Your task to perform on an android device: Play the last video I watched on Youtube Image 0: 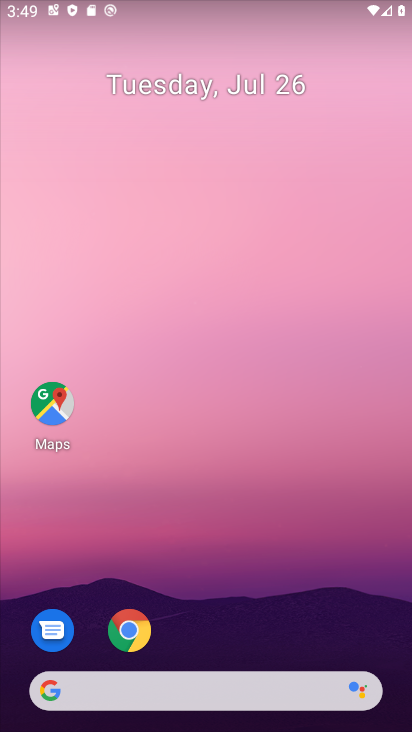
Step 0: drag from (263, 618) to (216, 85)
Your task to perform on an android device: Play the last video I watched on Youtube Image 1: 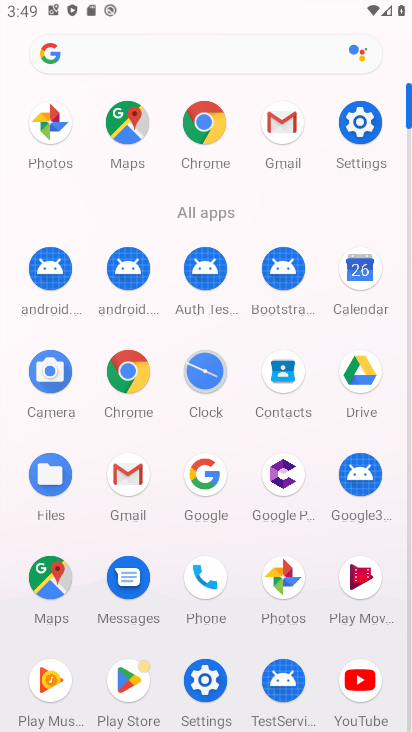
Step 1: click (366, 673)
Your task to perform on an android device: Play the last video I watched on Youtube Image 2: 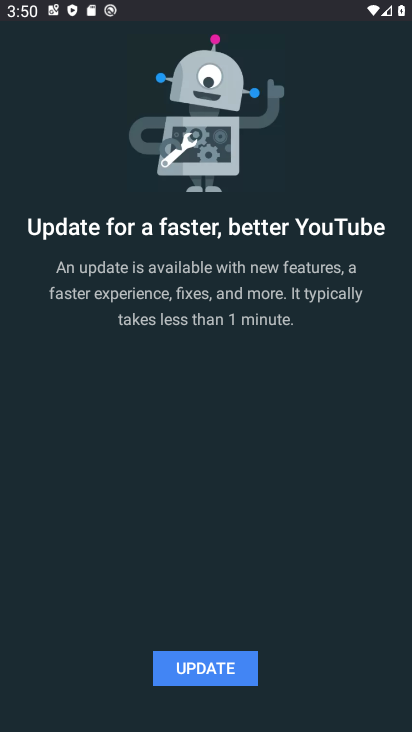
Step 2: click (247, 678)
Your task to perform on an android device: Play the last video I watched on Youtube Image 3: 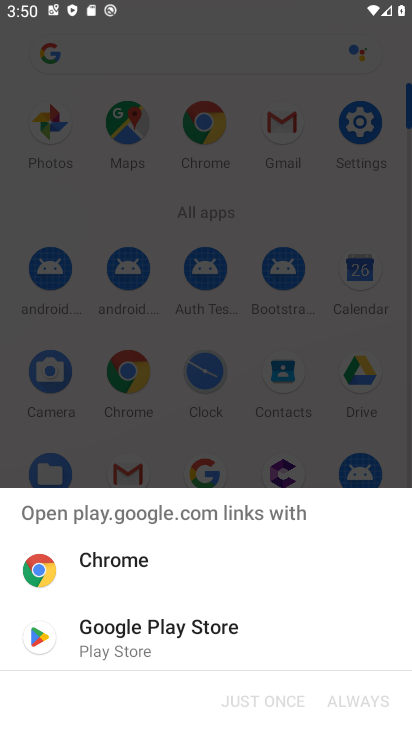
Step 3: click (200, 633)
Your task to perform on an android device: Play the last video I watched on Youtube Image 4: 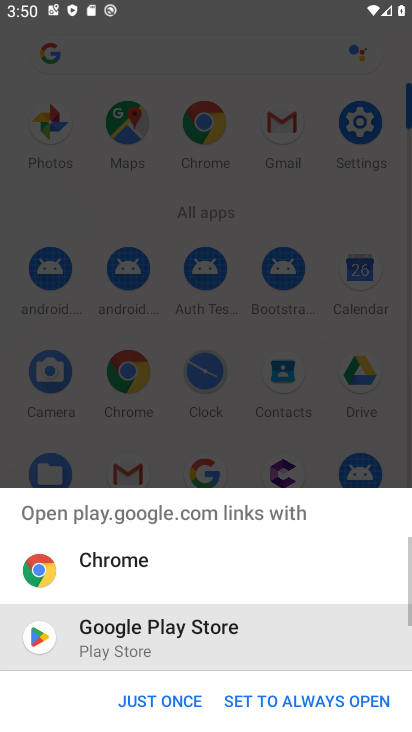
Step 4: click (178, 697)
Your task to perform on an android device: Play the last video I watched on Youtube Image 5: 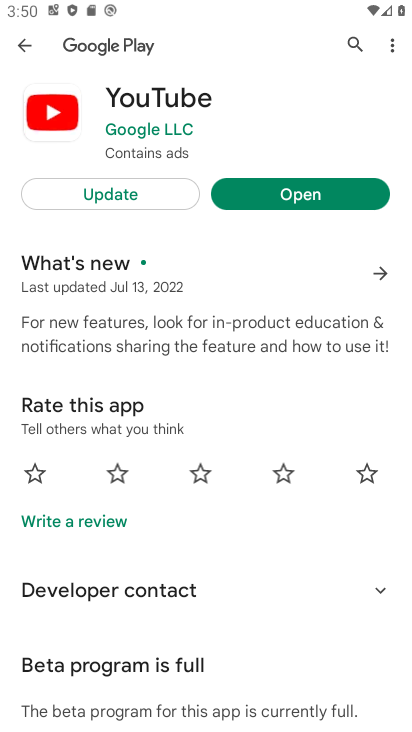
Step 5: click (116, 194)
Your task to perform on an android device: Play the last video I watched on Youtube Image 6: 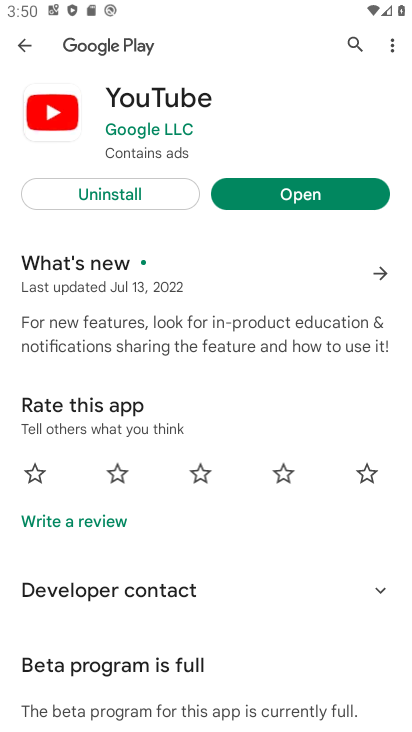
Step 6: click (346, 195)
Your task to perform on an android device: Play the last video I watched on Youtube Image 7: 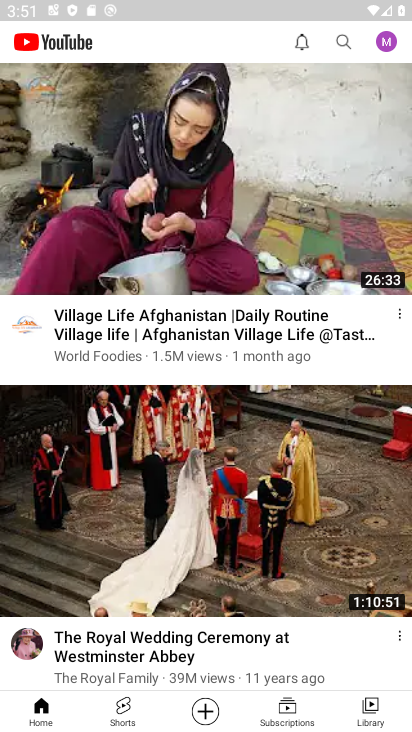
Step 7: click (375, 705)
Your task to perform on an android device: Play the last video I watched on Youtube Image 8: 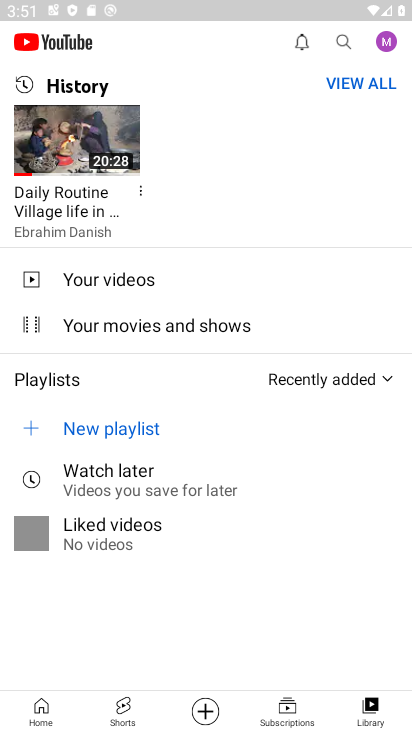
Step 8: click (74, 172)
Your task to perform on an android device: Play the last video I watched on Youtube Image 9: 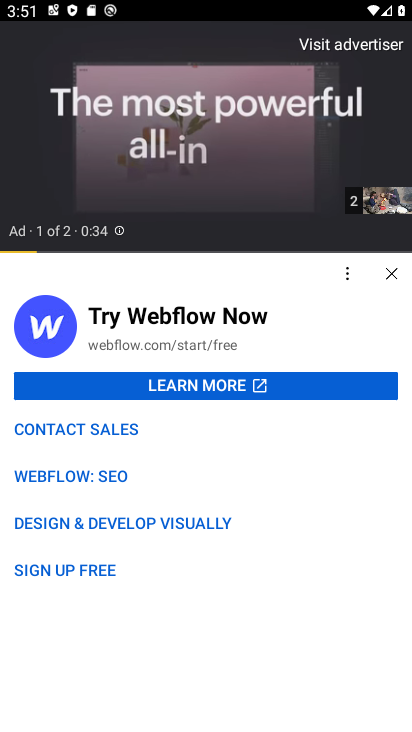
Step 9: task complete